Your task to perform on an android device: Go to privacy settings Image 0: 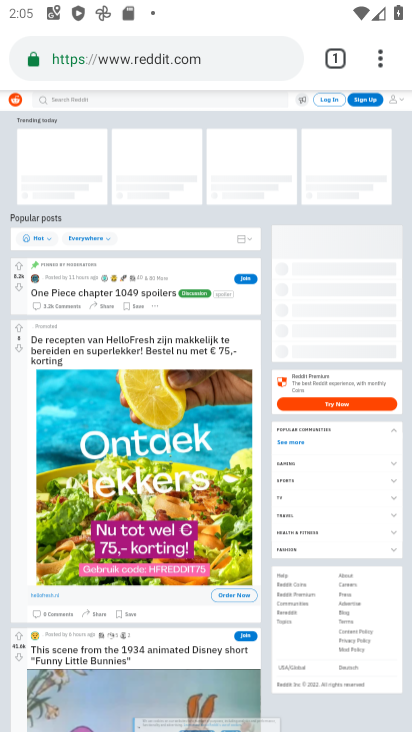
Step 0: press home button
Your task to perform on an android device: Go to privacy settings Image 1: 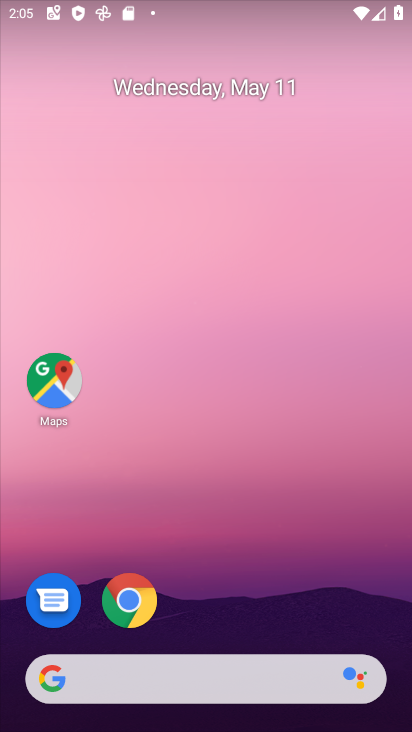
Step 1: drag from (265, 721) to (352, 69)
Your task to perform on an android device: Go to privacy settings Image 2: 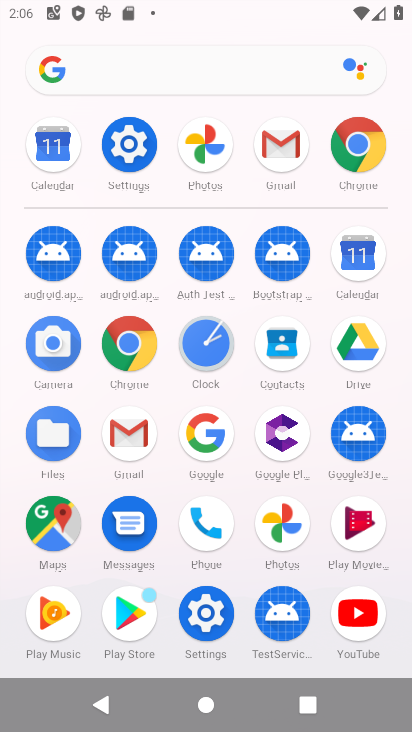
Step 2: click (117, 146)
Your task to perform on an android device: Go to privacy settings Image 3: 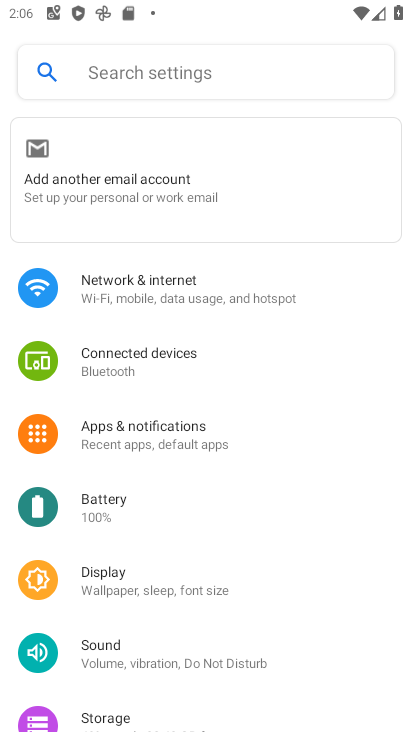
Step 3: drag from (186, 684) to (166, 175)
Your task to perform on an android device: Go to privacy settings Image 4: 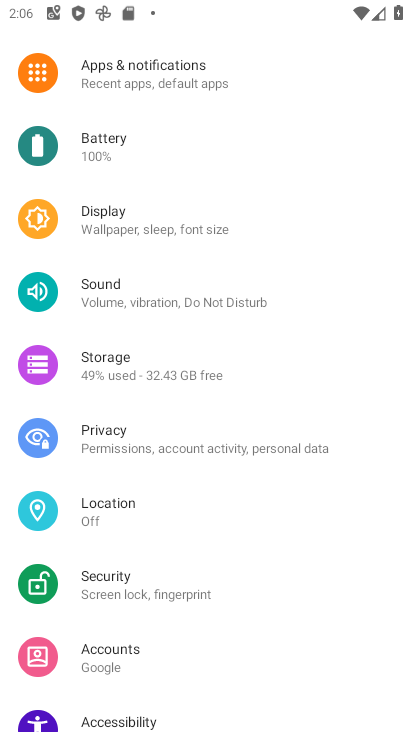
Step 4: click (132, 429)
Your task to perform on an android device: Go to privacy settings Image 5: 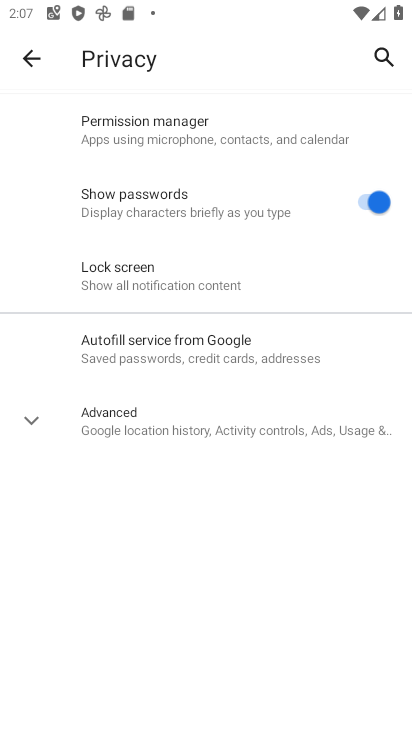
Step 5: task complete